Your task to perform on an android device: Open settings on Google Maps Image 0: 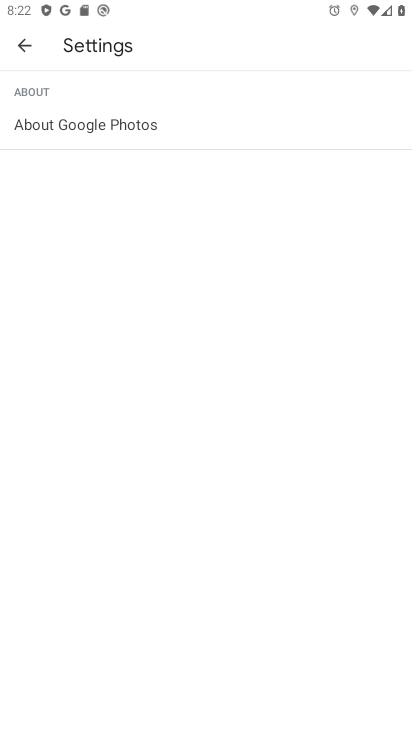
Step 0: press home button
Your task to perform on an android device: Open settings on Google Maps Image 1: 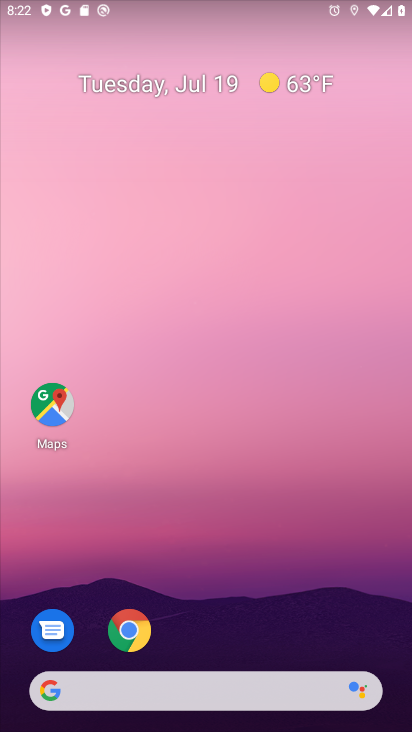
Step 1: click (47, 395)
Your task to perform on an android device: Open settings on Google Maps Image 2: 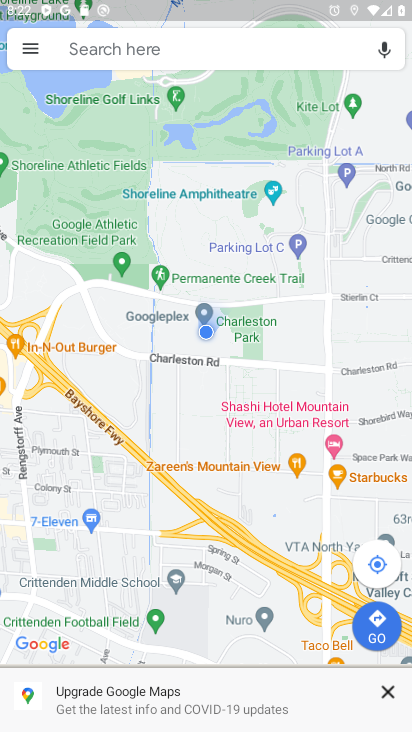
Step 2: click (19, 43)
Your task to perform on an android device: Open settings on Google Maps Image 3: 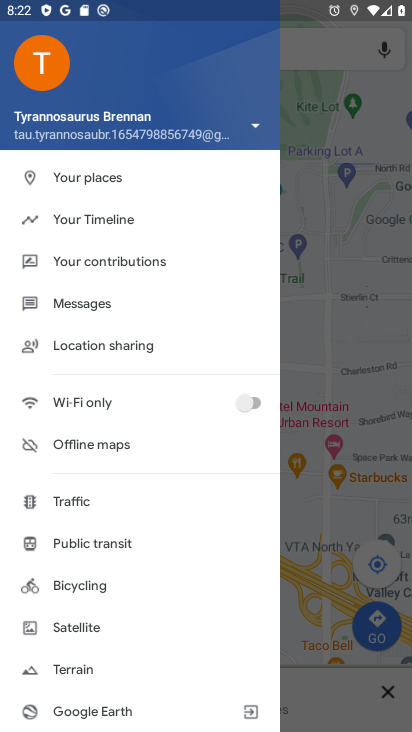
Step 3: drag from (56, 659) to (53, 179)
Your task to perform on an android device: Open settings on Google Maps Image 4: 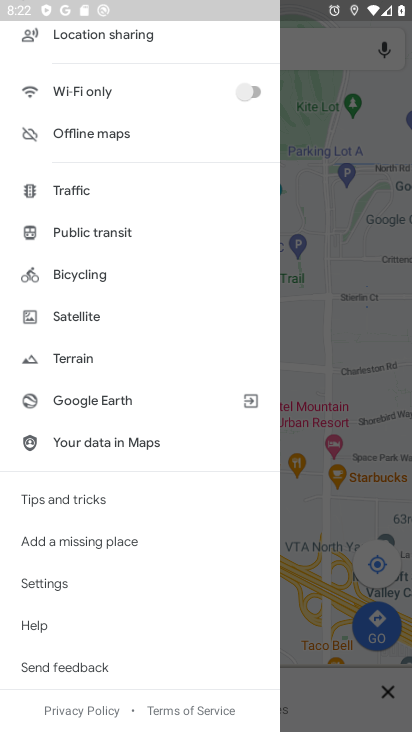
Step 4: click (73, 581)
Your task to perform on an android device: Open settings on Google Maps Image 5: 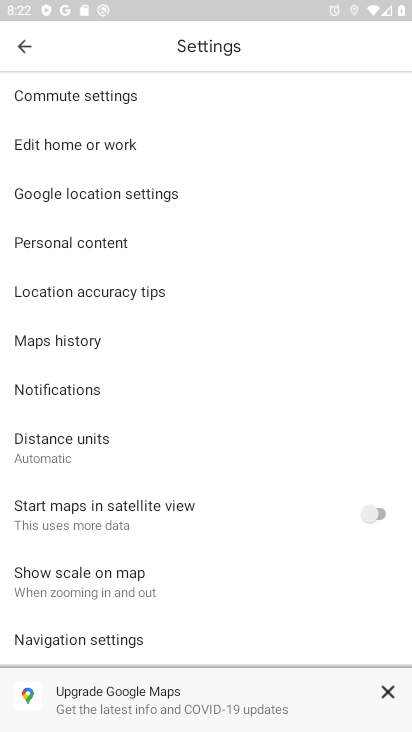
Step 5: task complete